Your task to perform on an android device: toggle pop-ups in chrome Image 0: 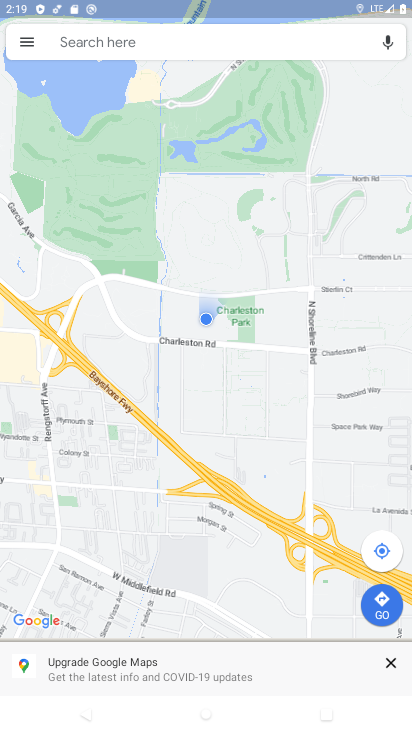
Step 0: press home button
Your task to perform on an android device: toggle pop-ups in chrome Image 1: 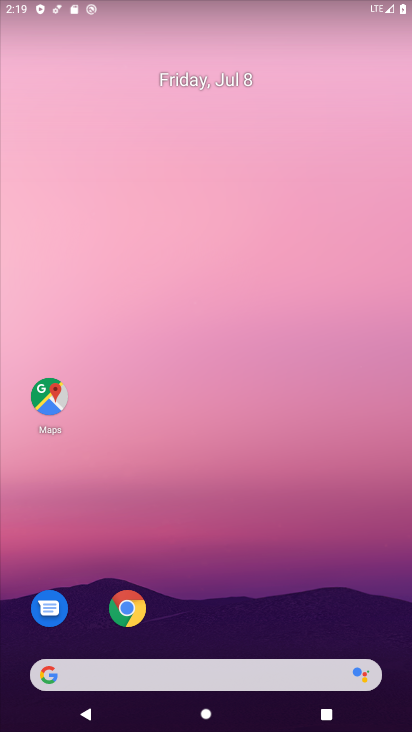
Step 1: click (131, 609)
Your task to perform on an android device: toggle pop-ups in chrome Image 2: 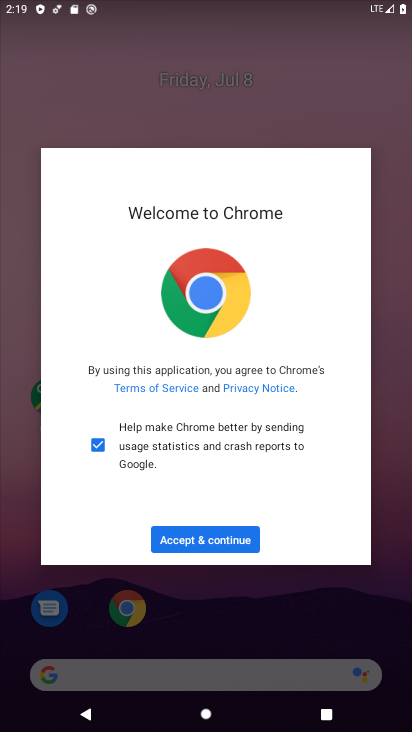
Step 2: click (210, 536)
Your task to perform on an android device: toggle pop-ups in chrome Image 3: 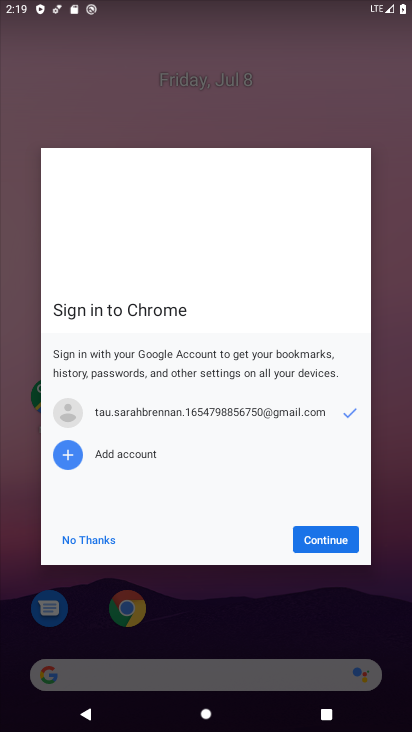
Step 3: click (312, 542)
Your task to perform on an android device: toggle pop-ups in chrome Image 4: 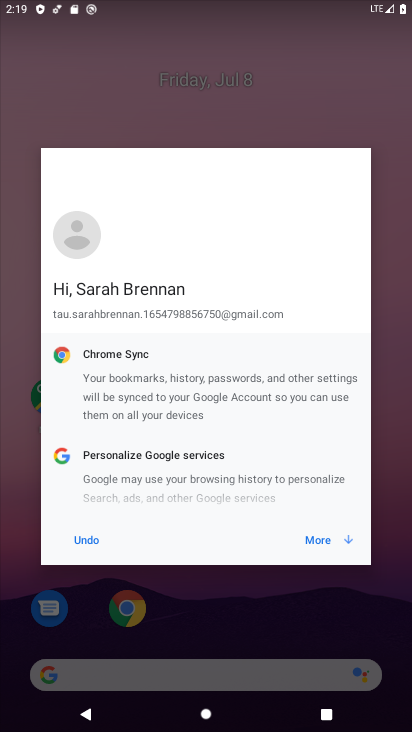
Step 4: click (312, 542)
Your task to perform on an android device: toggle pop-ups in chrome Image 5: 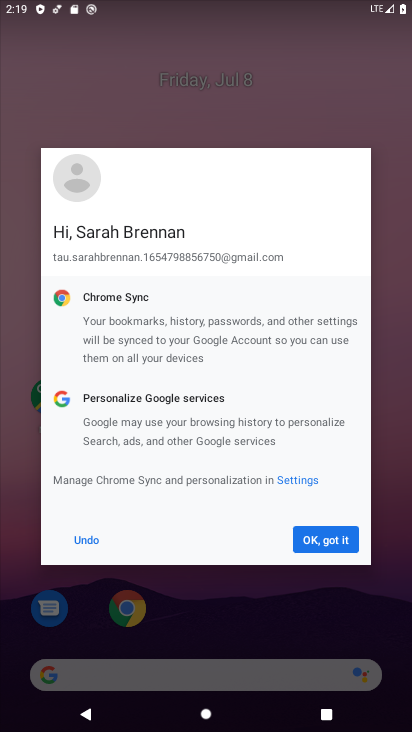
Step 5: click (312, 542)
Your task to perform on an android device: toggle pop-ups in chrome Image 6: 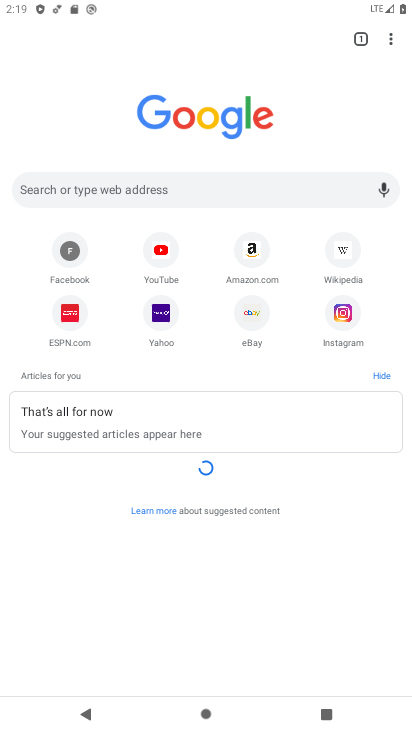
Step 6: click (389, 36)
Your task to perform on an android device: toggle pop-ups in chrome Image 7: 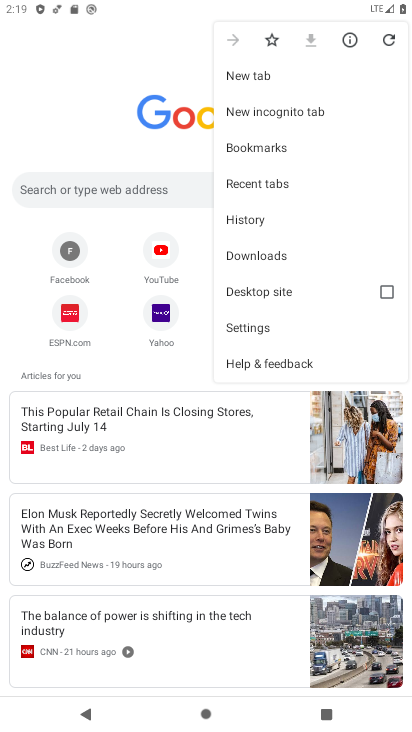
Step 7: click (257, 324)
Your task to perform on an android device: toggle pop-ups in chrome Image 8: 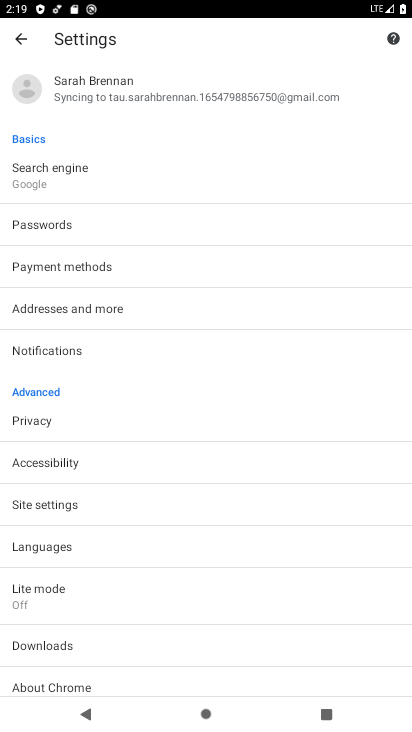
Step 8: click (87, 510)
Your task to perform on an android device: toggle pop-ups in chrome Image 9: 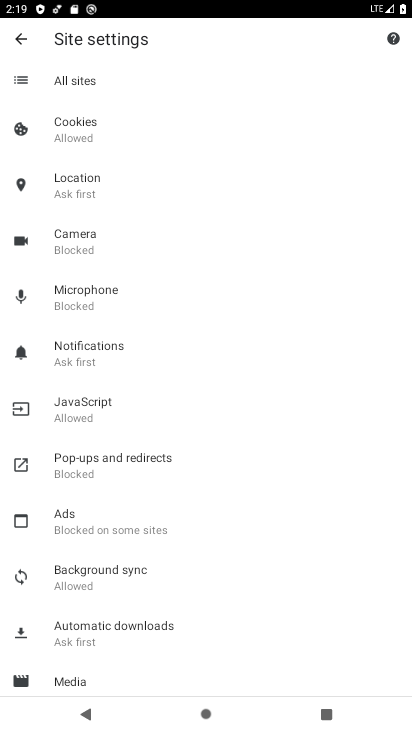
Step 9: click (133, 466)
Your task to perform on an android device: toggle pop-ups in chrome Image 10: 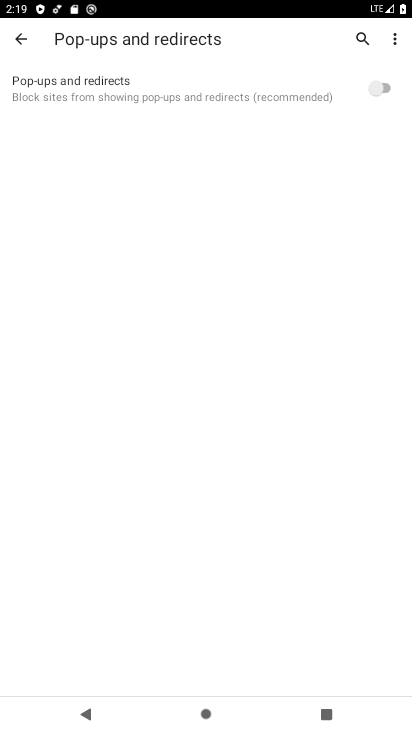
Step 10: click (373, 85)
Your task to perform on an android device: toggle pop-ups in chrome Image 11: 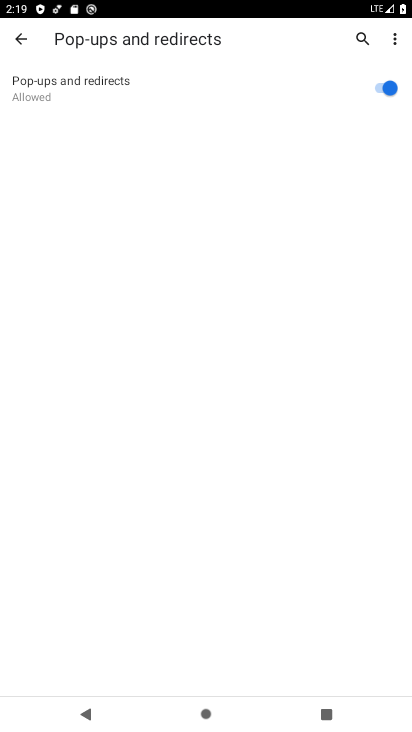
Step 11: task complete